Your task to perform on an android device: delete a single message in the gmail app Image 0: 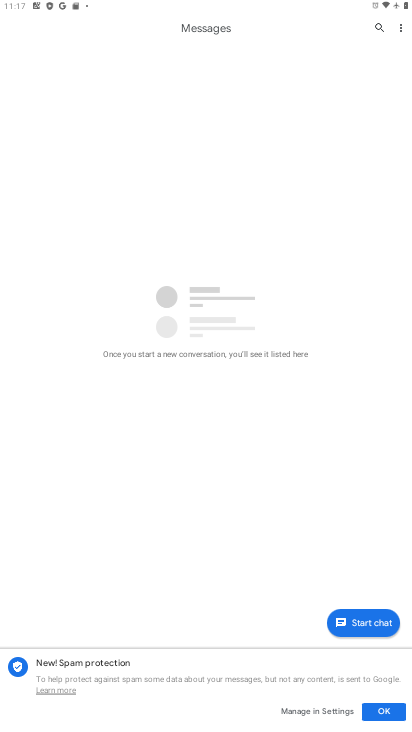
Step 0: press home button
Your task to perform on an android device: delete a single message in the gmail app Image 1: 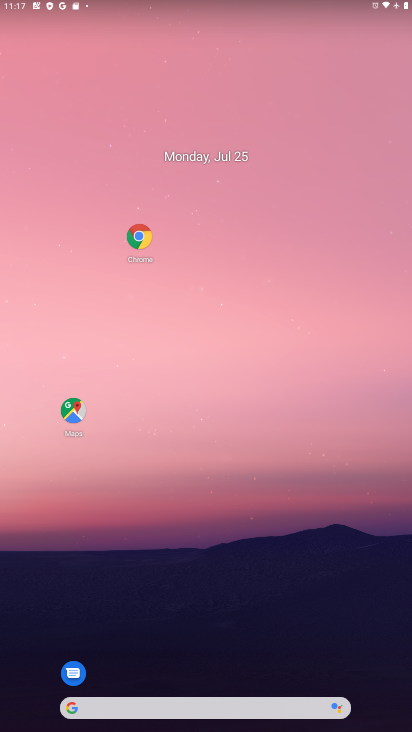
Step 1: drag from (273, 682) to (308, 171)
Your task to perform on an android device: delete a single message in the gmail app Image 2: 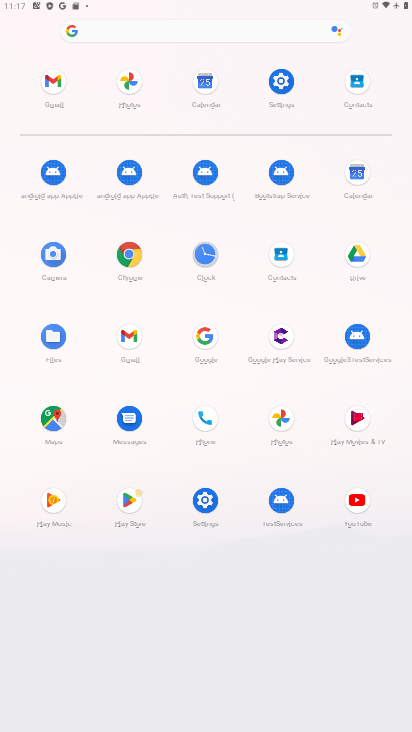
Step 2: click (68, 98)
Your task to perform on an android device: delete a single message in the gmail app Image 3: 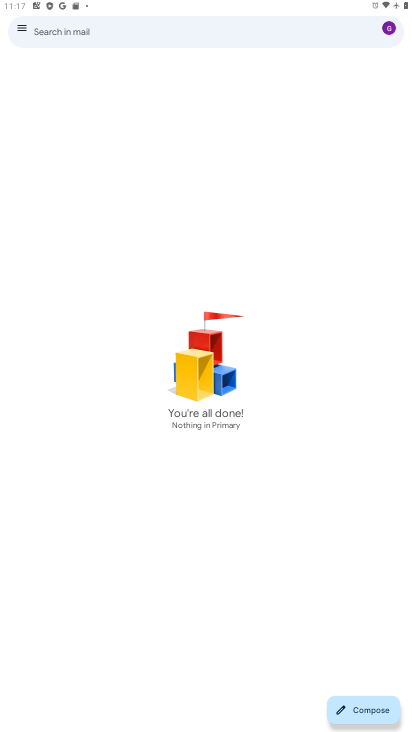
Step 3: click (24, 27)
Your task to perform on an android device: delete a single message in the gmail app Image 4: 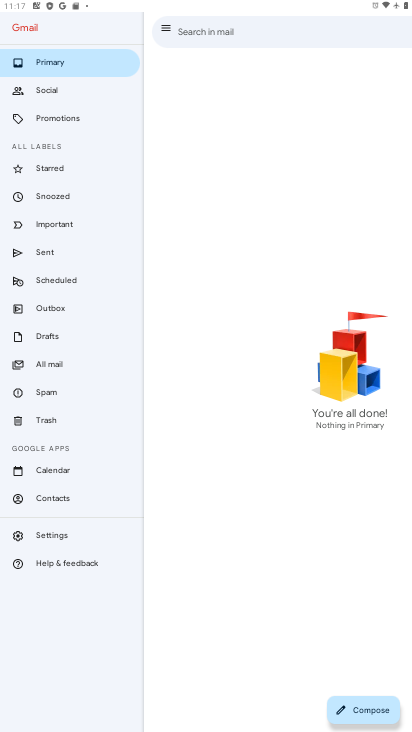
Step 4: click (75, 361)
Your task to perform on an android device: delete a single message in the gmail app Image 5: 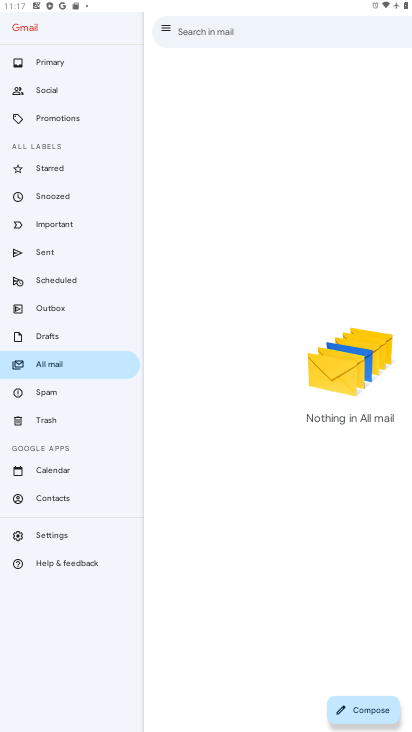
Step 5: task complete